Your task to perform on an android device: Go to battery settings Image 0: 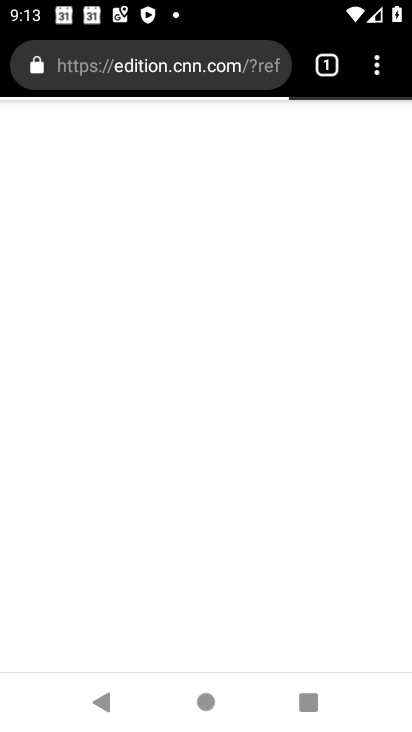
Step 0: press home button
Your task to perform on an android device: Go to battery settings Image 1: 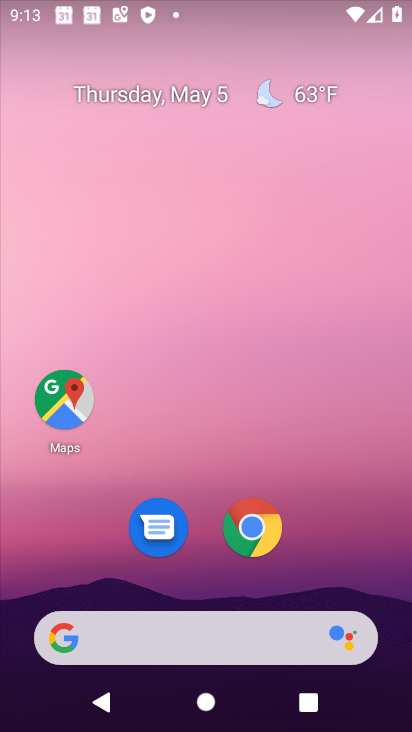
Step 1: drag from (256, 712) to (322, 86)
Your task to perform on an android device: Go to battery settings Image 2: 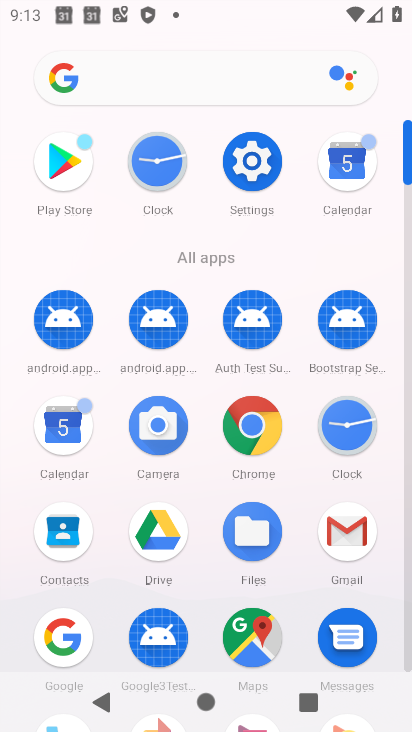
Step 2: click (264, 177)
Your task to perform on an android device: Go to battery settings Image 3: 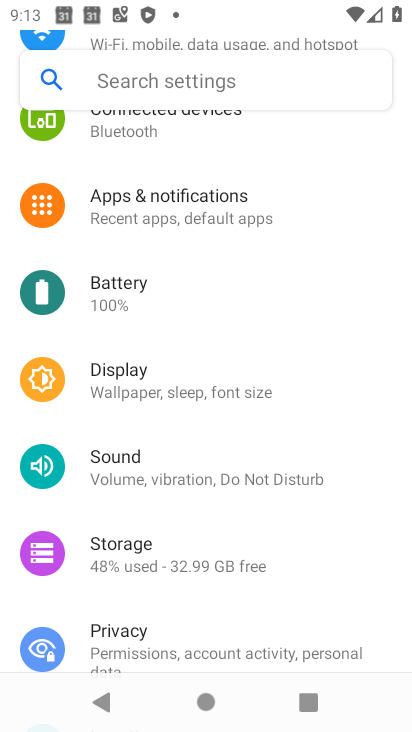
Step 3: click (143, 292)
Your task to perform on an android device: Go to battery settings Image 4: 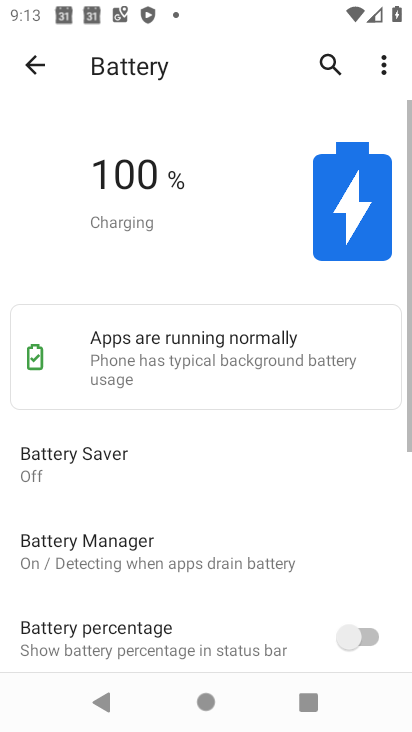
Step 4: task complete